Your task to perform on an android device: change keyboard looks Image 0: 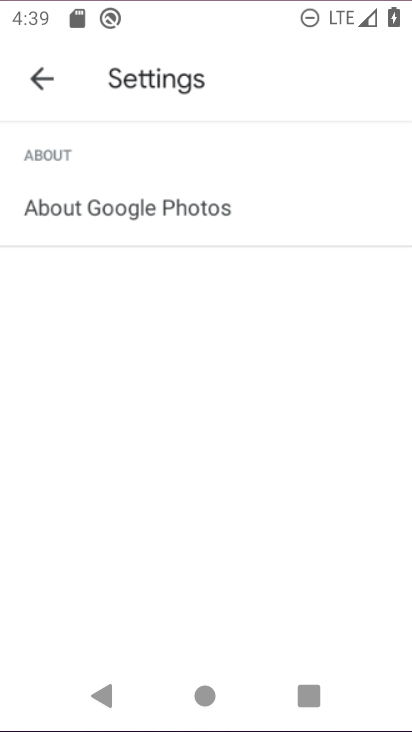
Step 0: drag from (132, 521) to (241, 18)
Your task to perform on an android device: change keyboard looks Image 1: 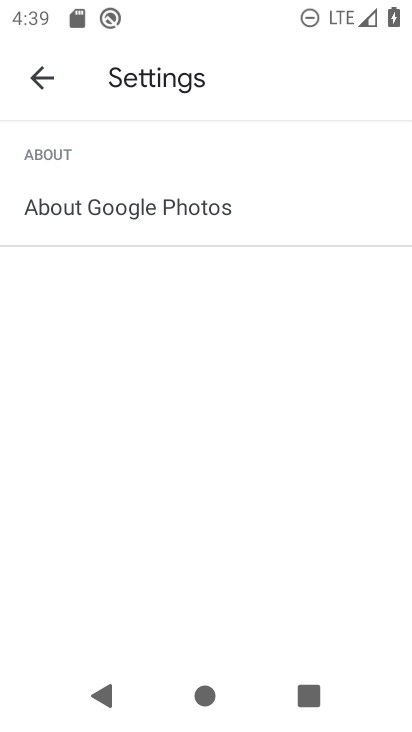
Step 1: press back button
Your task to perform on an android device: change keyboard looks Image 2: 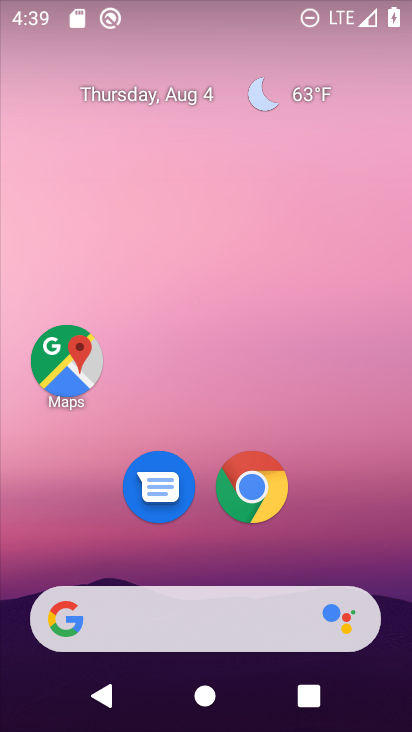
Step 2: drag from (85, 530) to (207, 7)
Your task to perform on an android device: change keyboard looks Image 3: 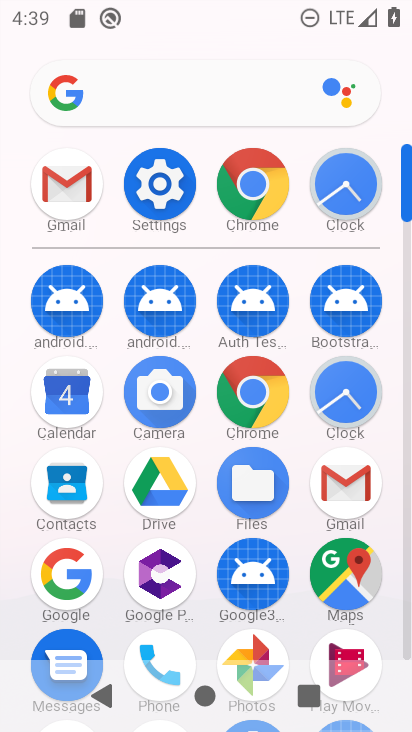
Step 3: click (184, 181)
Your task to perform on an android device: change keyboard looks Image 4: 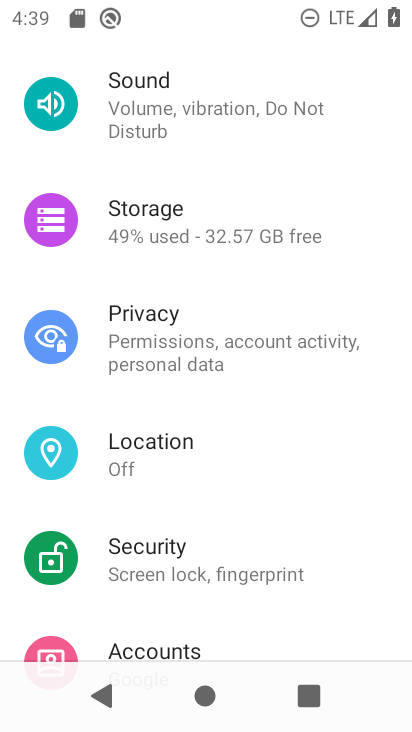
Step 4: drag from (225, 593) to (258, 12)
Your task to perform on an android device: change keyboard looks Image 5: 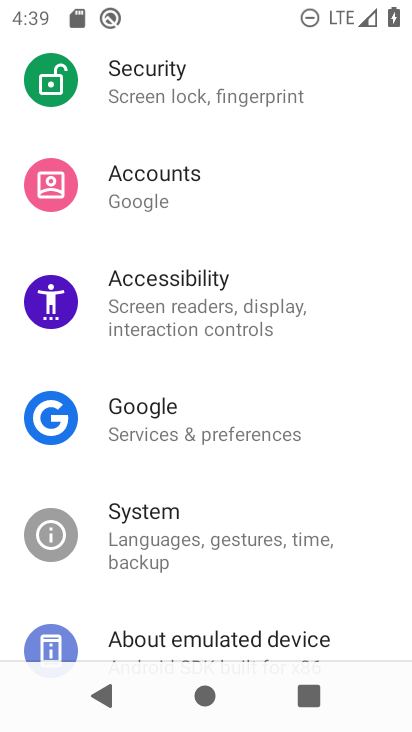
Step 5: drag from (203, 604) to (238, 29)
Your task to perform on an android device: change keyboard looks Image 6: 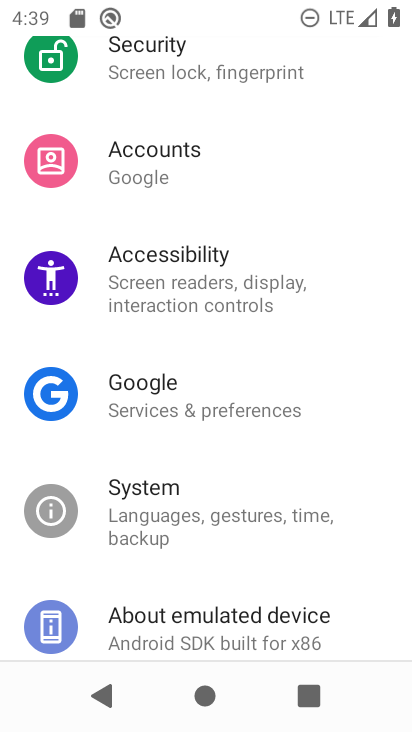
Step 6: drag from (197, 500) to (209, 71)
Your task to perform on an android device: change keyboard looks Image 7: 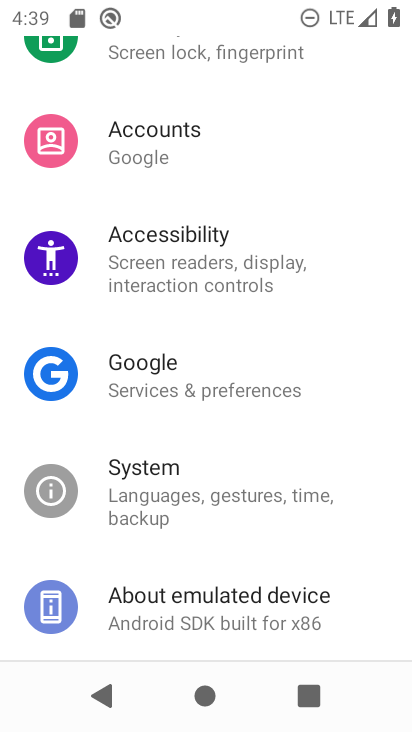
Step 7: click (189, 503)
Your task to perform on an android device: change keyboard looks Image 8: 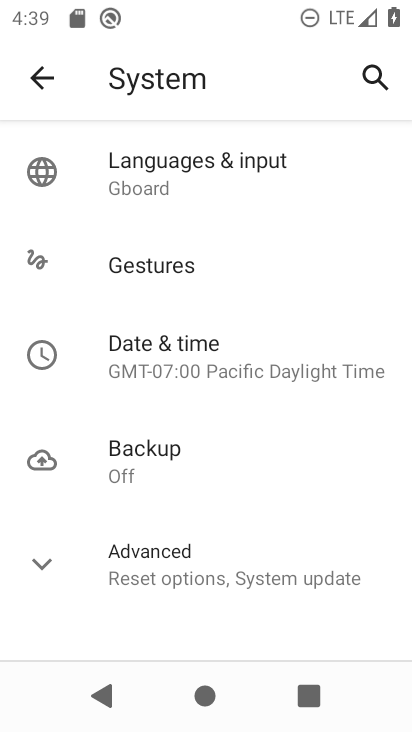
Step 8: click (160, 164)
Your task to perform on an android device: change keyboard looks Image 9: 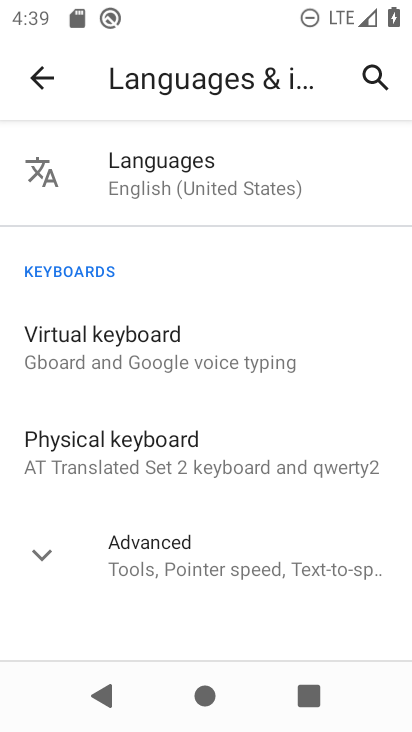
Step 9: click (145, 366)
Your task to perform on an android device: change keyboard looks Image 10: 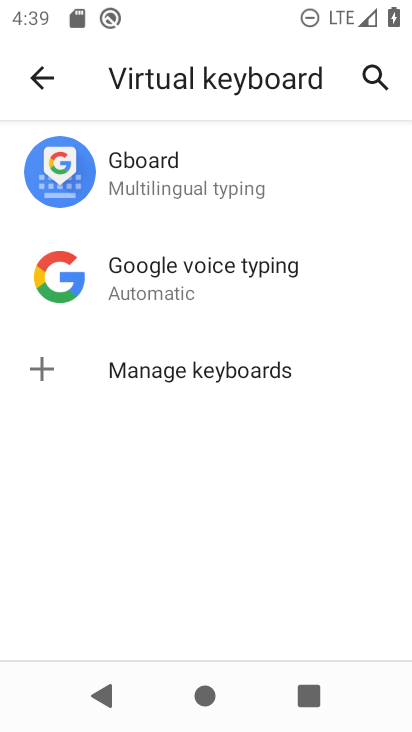
Step 10: click (155, 163)
Your task to perform on an android device: change keyboard looks Image 11: 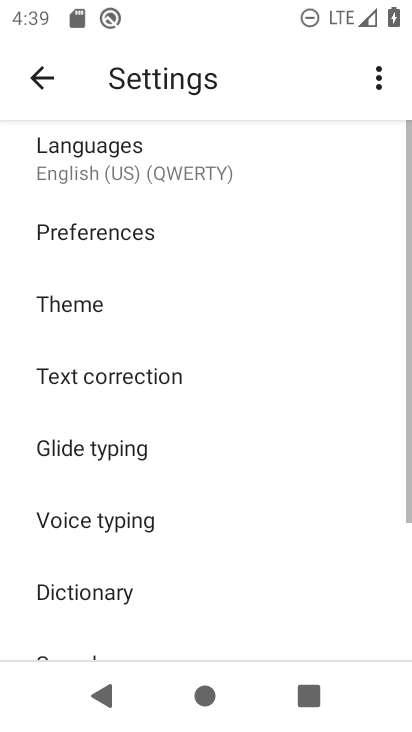
Step 11: click (66, 302)
Your task to perform on an android device: change keyboard looks Image 12: 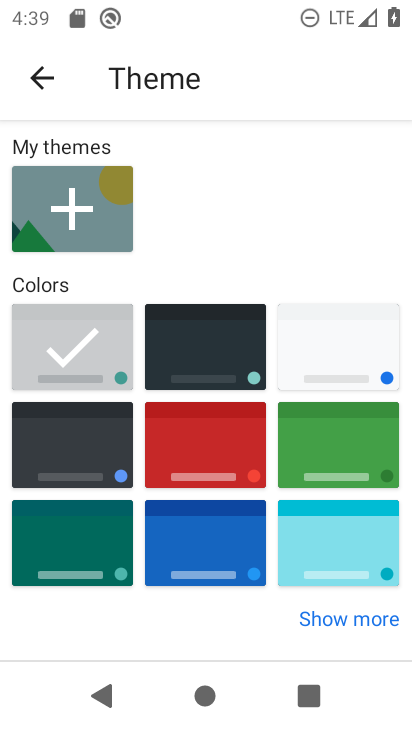
Step 12: click (210, 449)
Your task to perform on an android device: change keyboard looks Image 13: 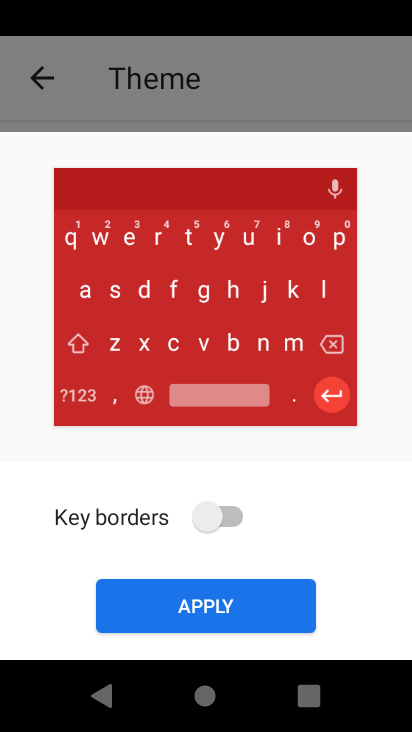
Step 13: click (211, 521)
Your task to perform on an android device: change keyboard looks Image 14: 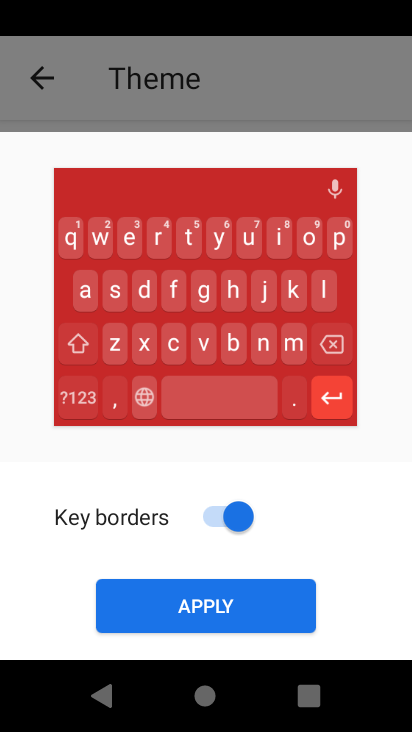
Step 14: click (208, 603)
Your task to perform on an android device: change keyboard looks Image 15: 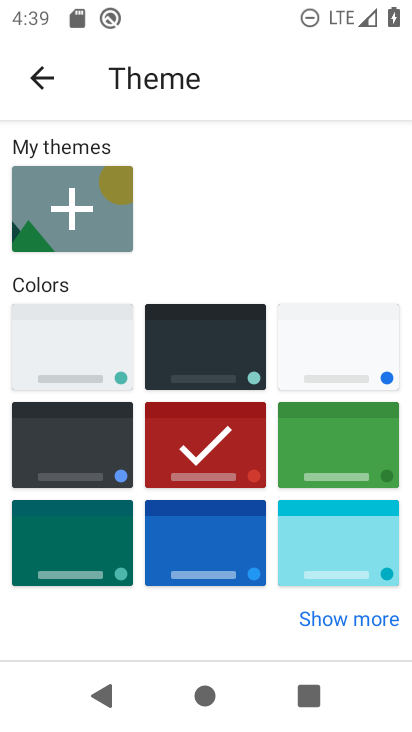
Step 15: task complete